Your task to perform on an android device: turn off wifi Image 0: 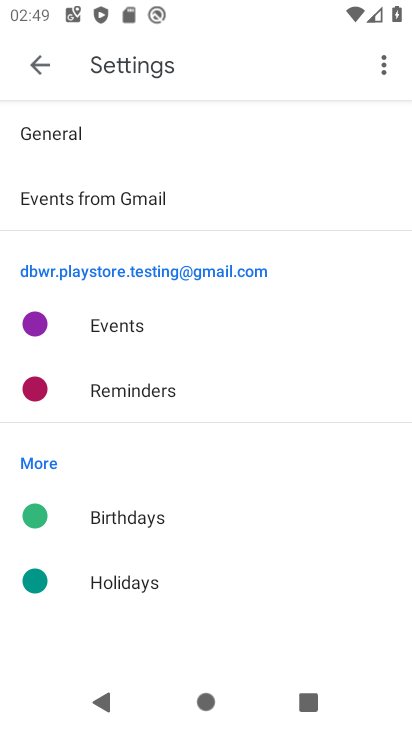
Step 0: press home button
Your task to perform on an android device: turn off wifi Image 1: 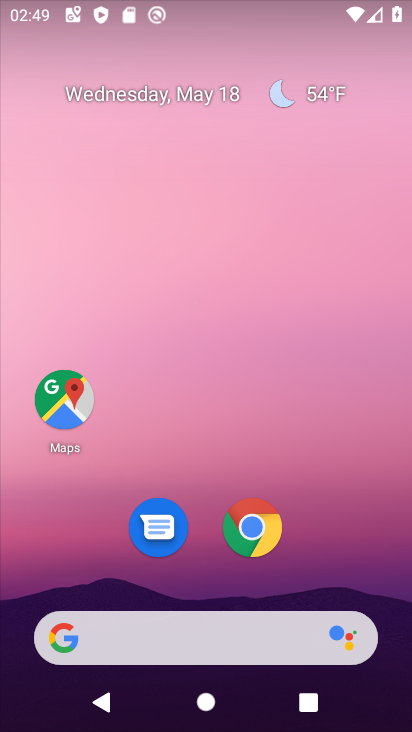
Step 1: drag from (196, 597) to (115, 15)
Your task to perform on an android device: turn off wifi Image 2: 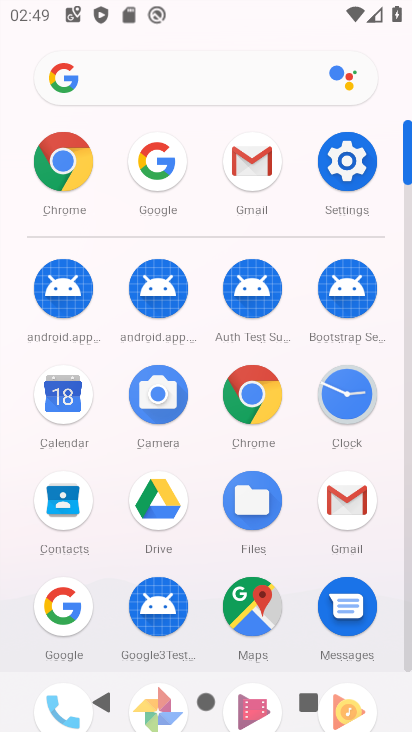
Step 2: click (325, 163)
Your task to perform on an android device: turn off wifi Image 3: 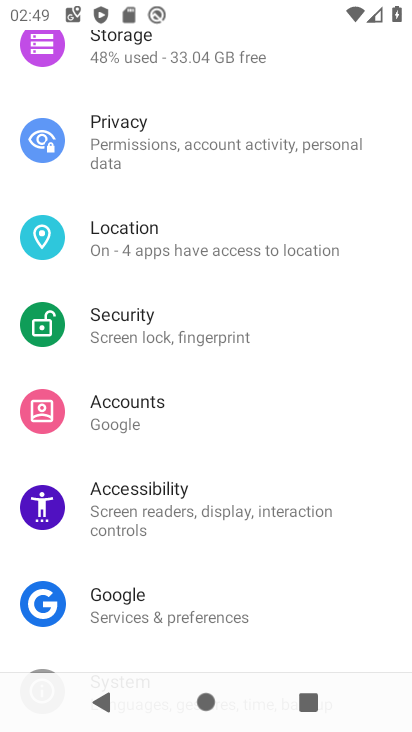
Step 3: drag from (284, 218) to (236, 656)
Your task to perform on an android device: turn off wifi Image 4: 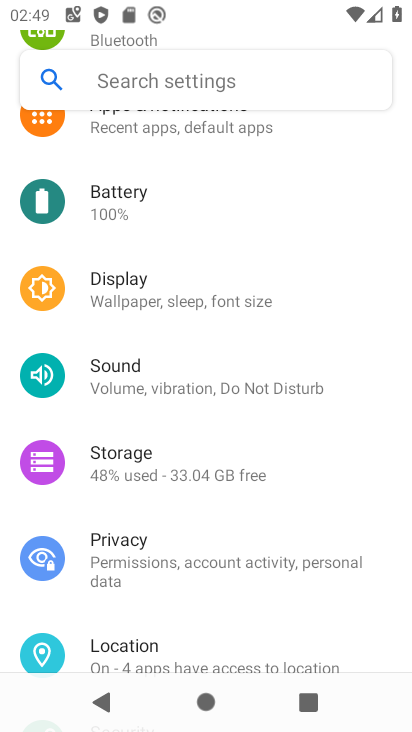
Step 4: drag from (220, 158) to (193, 702)
Your task to perform on an android device: turn off wifi Image 5: 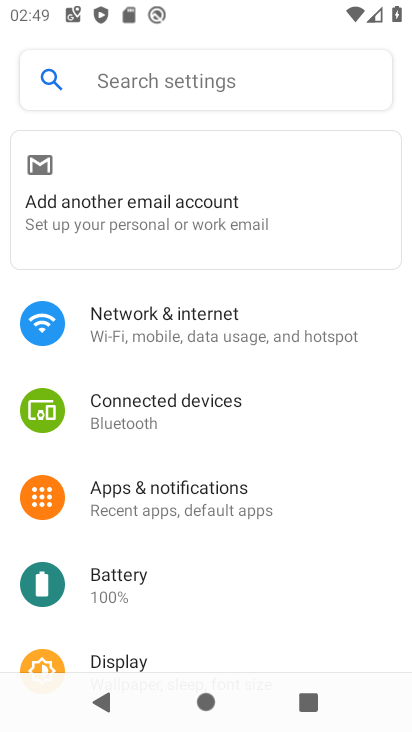
Step 5: click (157, 324)
Your task to perform on an android device: turn off wifi Image 6: 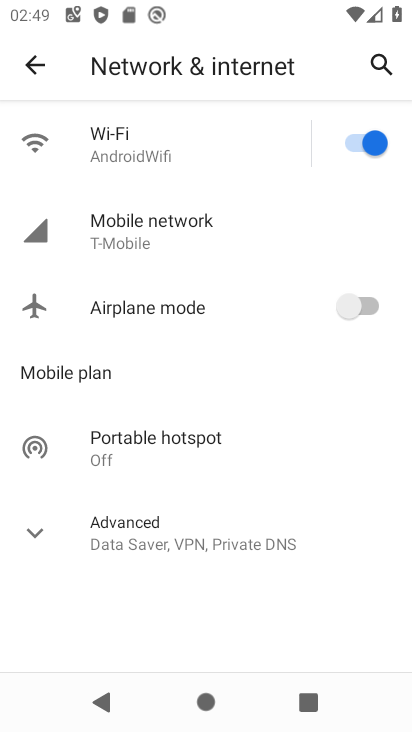
Step 6: click (159, 163)
Your task to perform on an android device: turn off wifi Image 7: 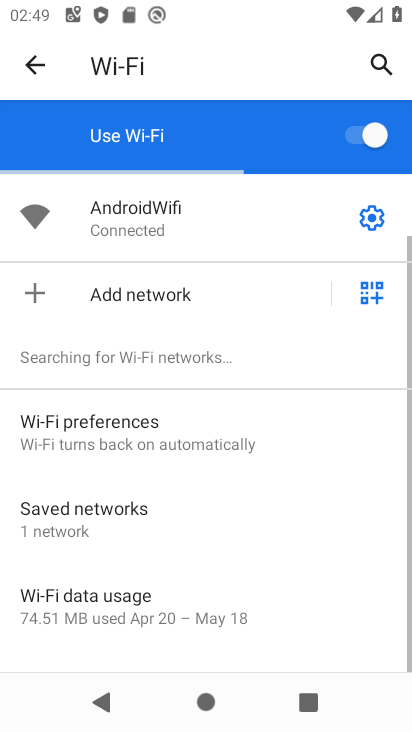
Step 7: click (362, 132)
Your task to perform on an android device: turn off wifi Image 8: 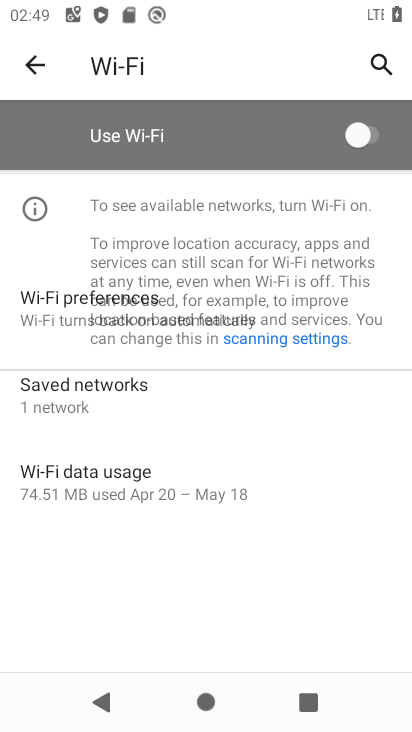
Step 8: task complete